Your task to perform on an android device: Open eBay Image 0: 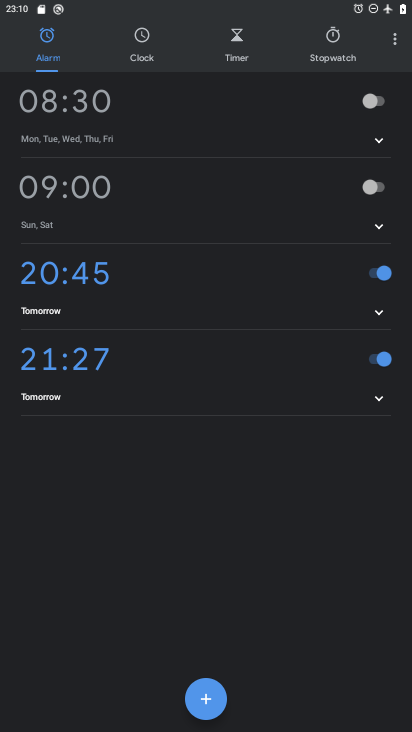
Step 0: press home button
Your task to perform on an android device: Open eBay Image 1: 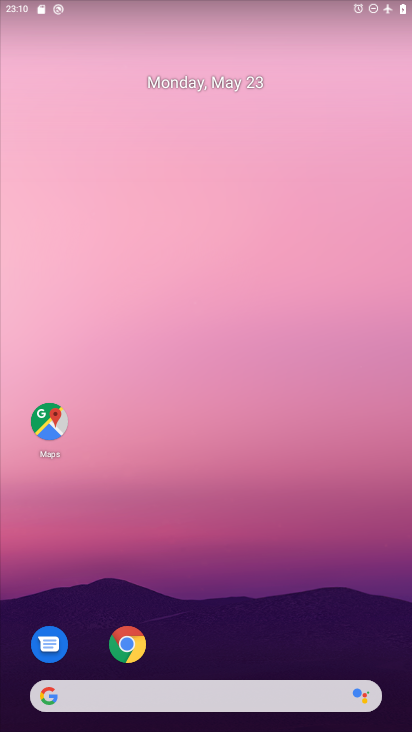
Step 1: click (294, 692)
Your task to perform on an android device: Open eBay Image 2: 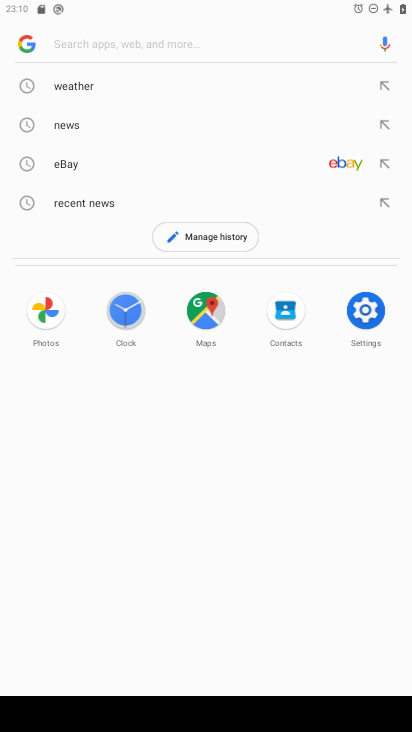
Step 2: click (348, 164)
Your task to perform on an android device: Open eBay Image 3: 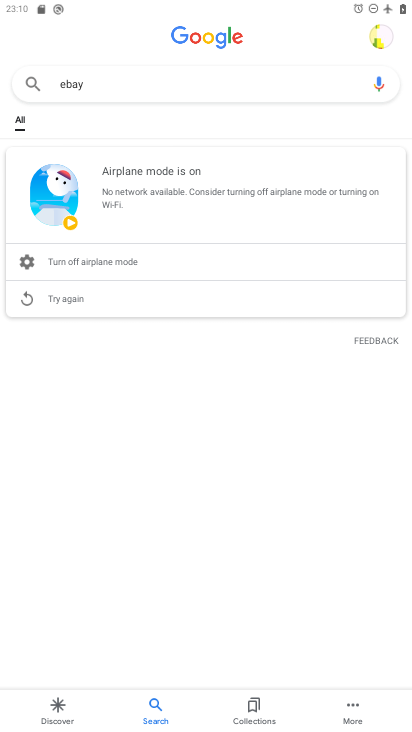
Step 3: task complete